Your task to perform on an android device: turn on translation in the chrome app Image 0: 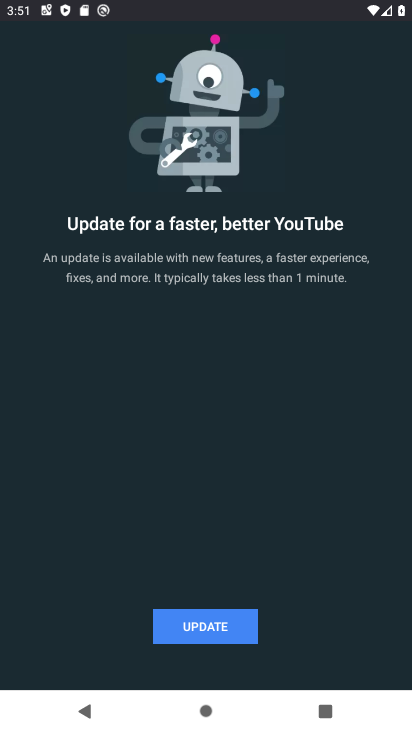
Step 0: press back button
Your task to perform on an android device: turn on translation in the chrome app Image 1: 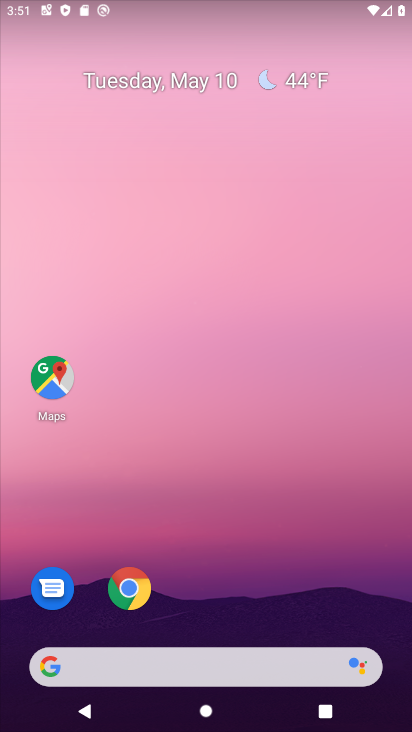
Step 1: click (147, 591)
Your task to perform on an android device: turn on translation in the chrome app Image 2: 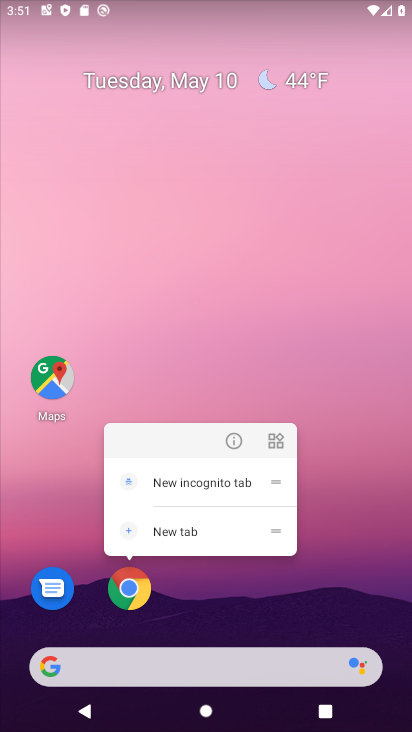
Step 2: click (134, 593)
Your task to perform on an android device: turn on translation in the chrome app Image 3: 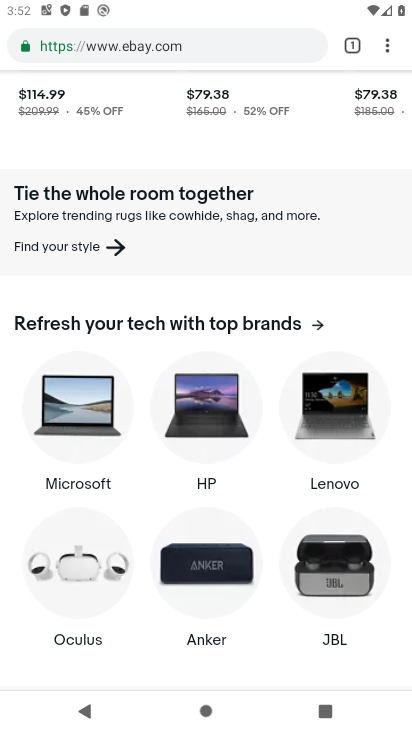
Step 3: click (388, 51)
Your task to perform on an android device: turn on translation in the chrome app Image 4: 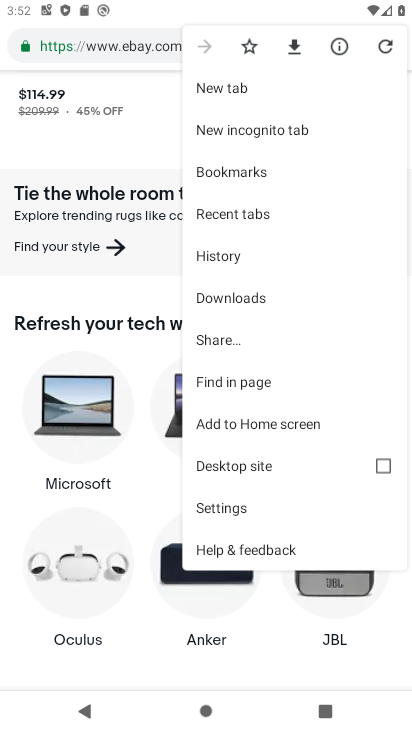
Step 4: click (250, 503)
Your task to perform on an android device: turn on translation in the chrome app Image 5: 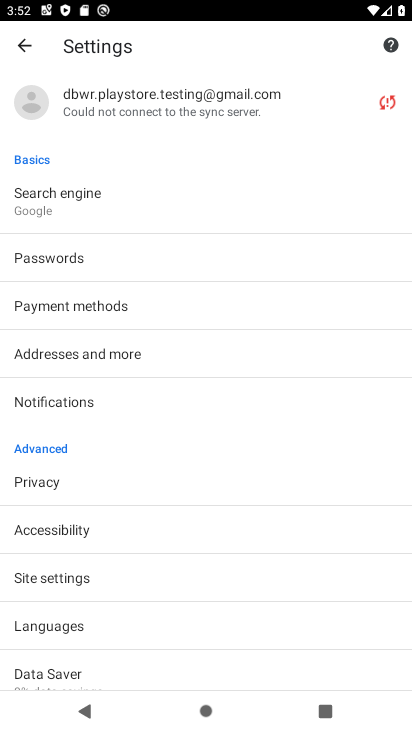
Step 5: click (94, 628)
Your task to perform on an android device: turn on translation in the chrome app Image 6: 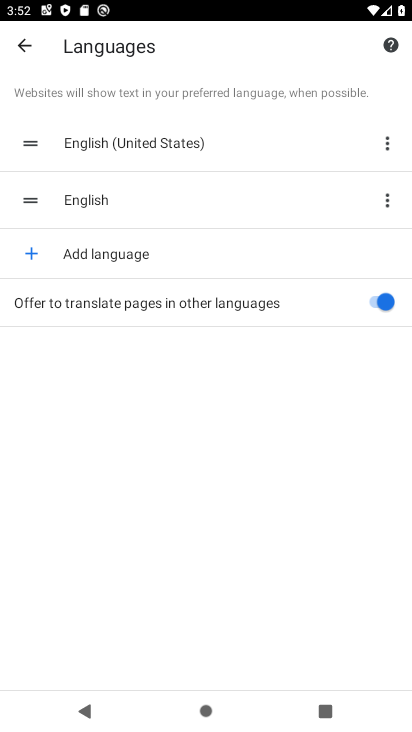
Step 6: task complete